Your task to perform on an android device: Search for Mexican restaurants on Maps Image 0: 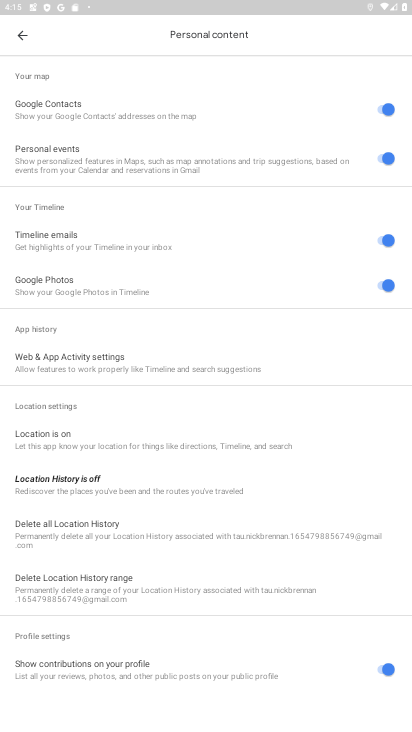
Step 0: press home button
Your task to perform on an android device: Search for Mexican restaurants on Maps Image 1: 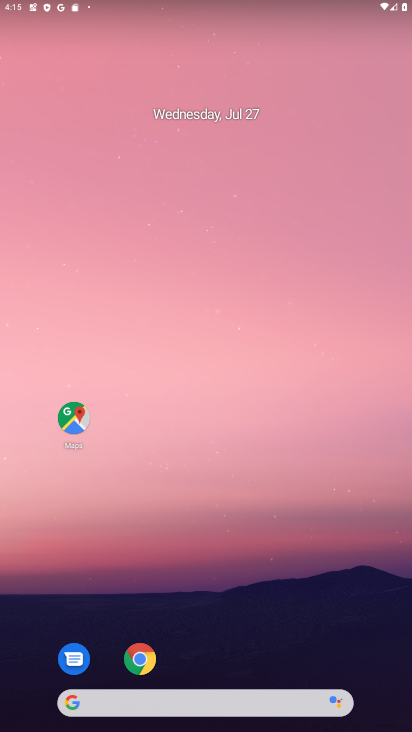
Step 1: click (74, 402)
Your task to perform on an android device: Search for Mexican restaurants on Maps Image 2: 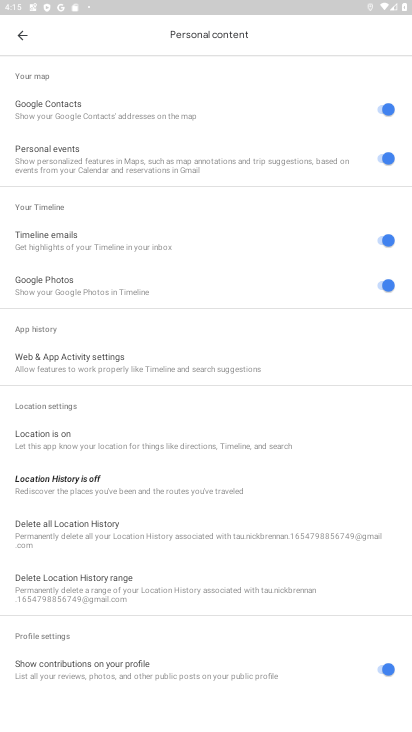
Step 2: click (24, 28)
Your task to perform on an android device: Search for Mexican restaurants on Maps Image 3: 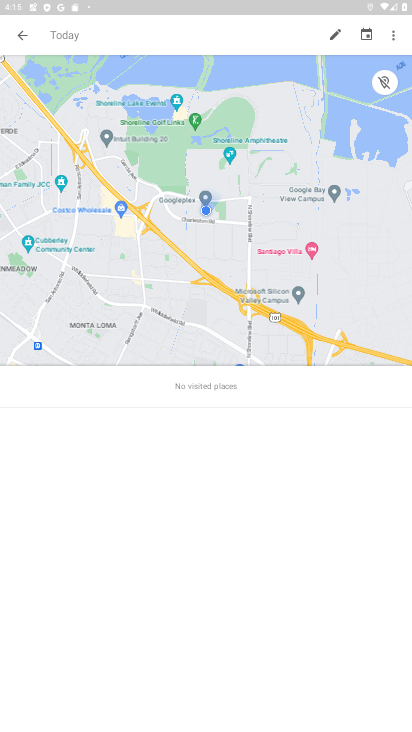
Step 3: click (16, 34)
Your task to perform on an android device: Search for Mexican restaurants on Maps Image 4: 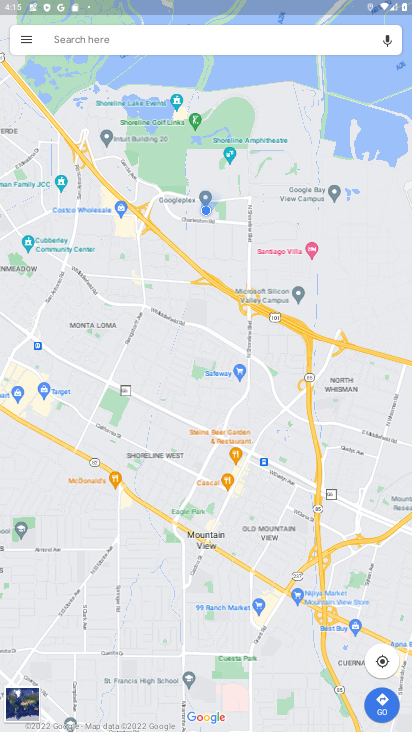
Step 4: click (177, 41)
Your task to perform on an android device: Search for Mexican restaurants on Maps Image 5: 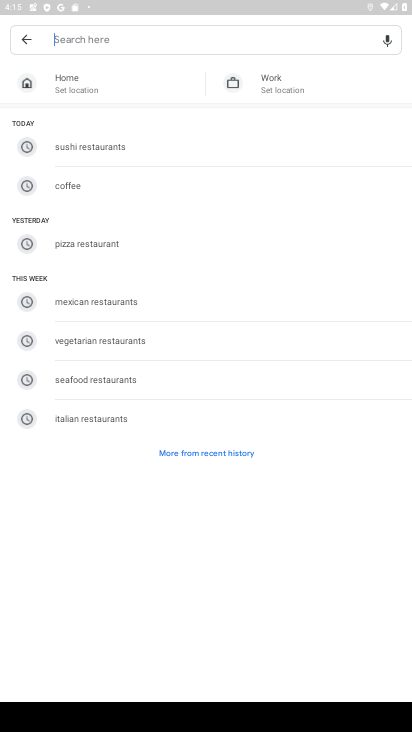
Step 5: click (204, 291)
Your task to perform on an android device: Search for Mexican restaurants on Maps Image 6: 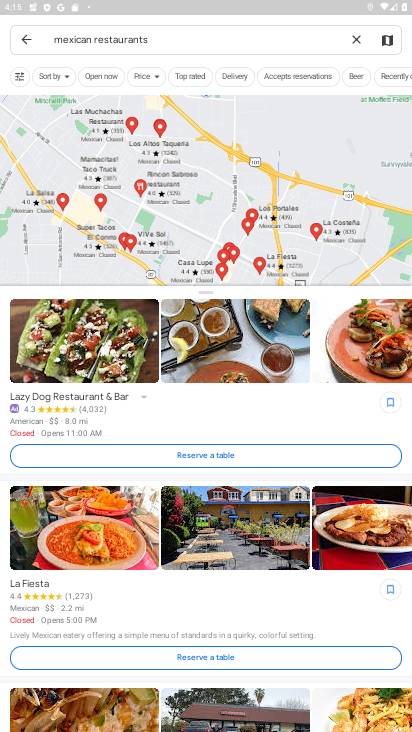
Step 6: task complete